Your task to perform on an android device: Show me the alarms in the clock app Image 0: 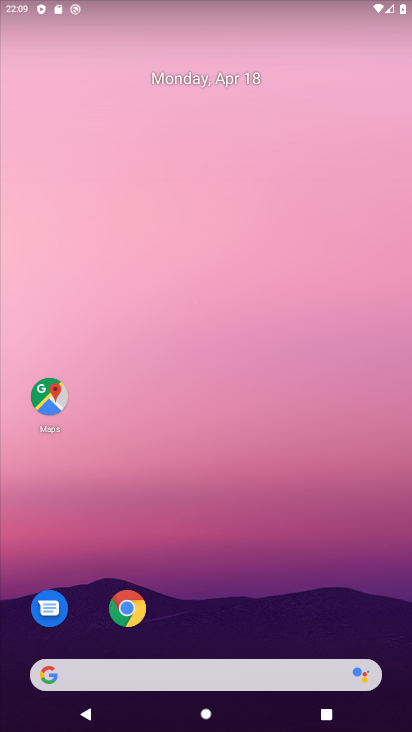
Step 0: drag from (227, 581) to (249, 113)
Your task to perform on an android device: Show me the alarms in the clock app Image 1: 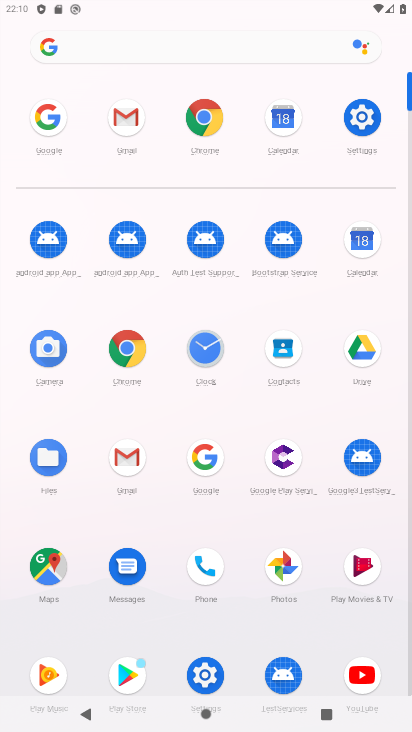
Step 1: click (208, 341)
Your task to perform on an android device: Show me the alarms in the clock app Image 2: 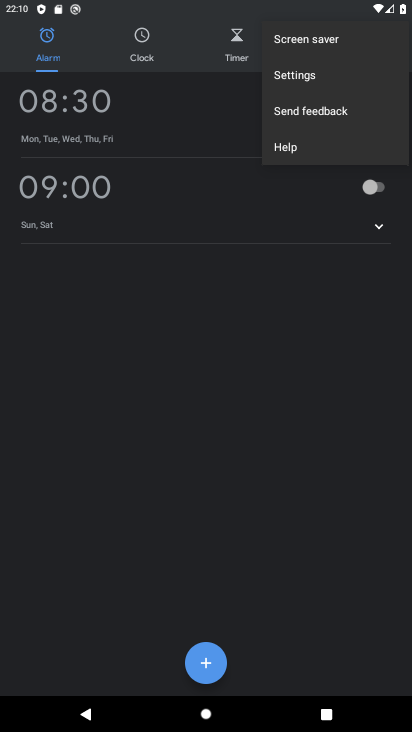
Step 2: click (146, 296)
Your task to perform on an android device: Show me the alarms in the clock app Image 3: 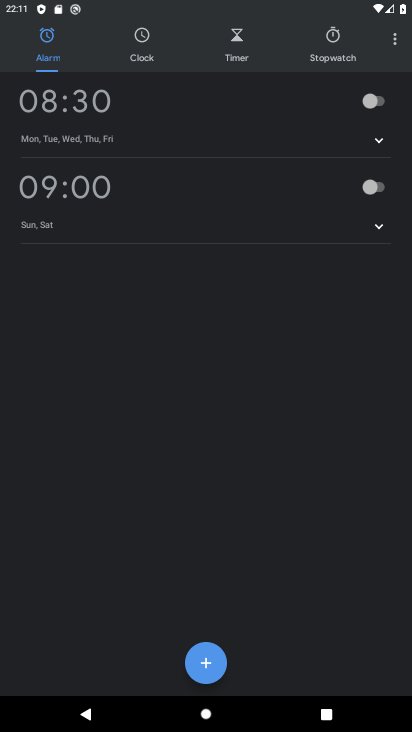
Step 3: task complete